Your task to perform on an android device: toggle priority inbox in the gmail app Image 0: 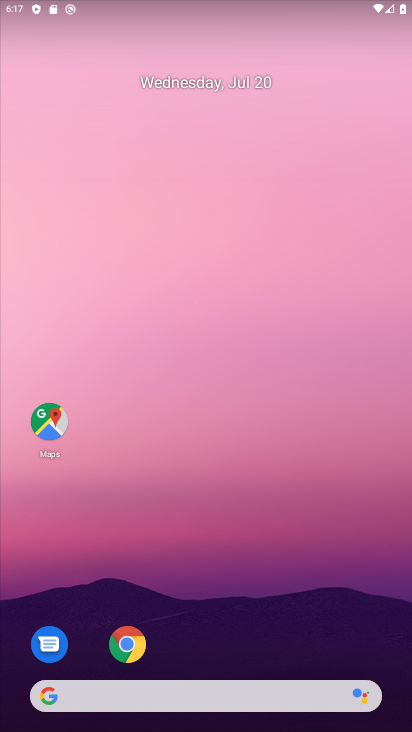
Step 0: drag from (239, 646) to (263, 92)
Your task to perform on an android device: toggle priority inbox in the gmail app Image 1: 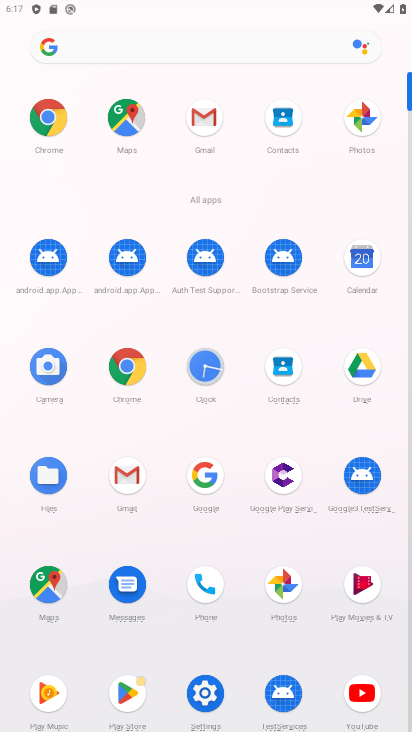
Step 1: click (201, 119)
Your task to perform on an android device: toggle priority inbox in the gmail app Image 2: 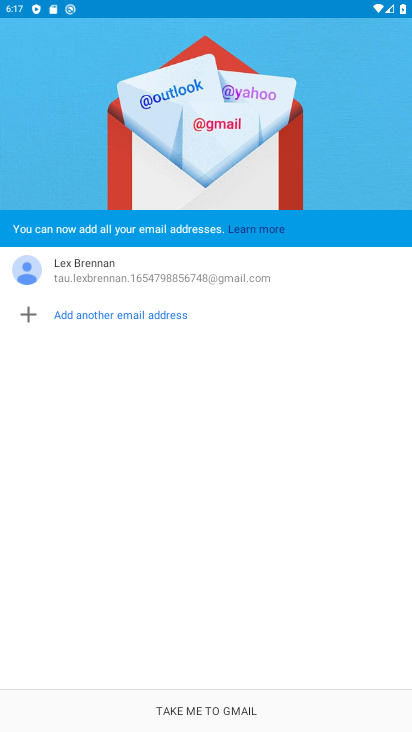
Step 2: click (206, 705)
Your task to perform on an android device: toggle priority inbox in the gmail app Image 3: 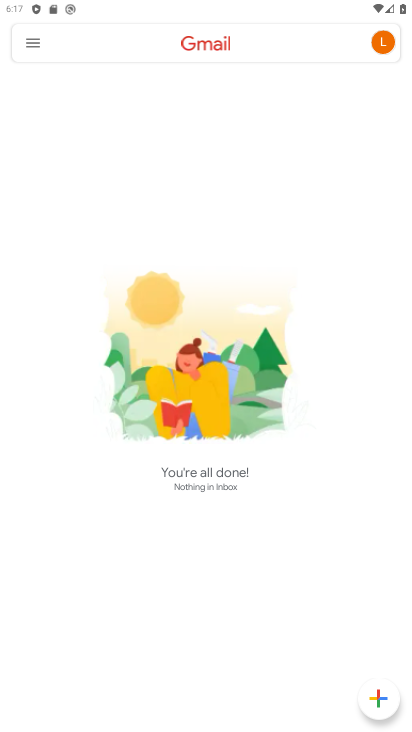
Step 3: click (26, 44)
Your task to perform on an android device: toggle priority inbox in the gmail app Image 4: 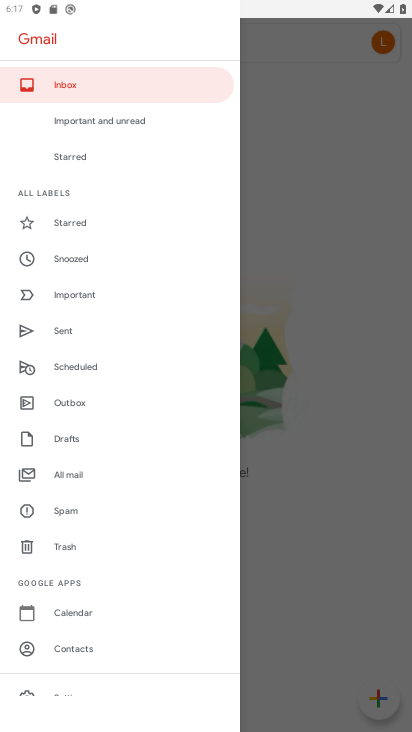
Step 4: drag from (88, 549) to (91, 110)
Your task to perform on an android device: toggle priority inbox in the gmail app Image 5: 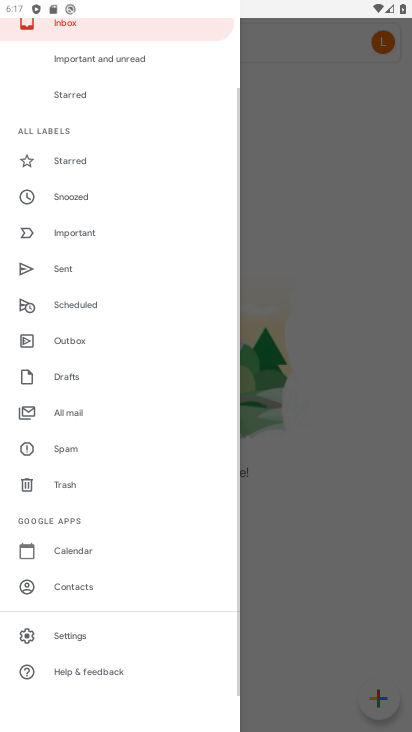
Step 5: click (76, 633)
Your task to perform on an android device: toggle priority inbox in the gmail app Image 6: 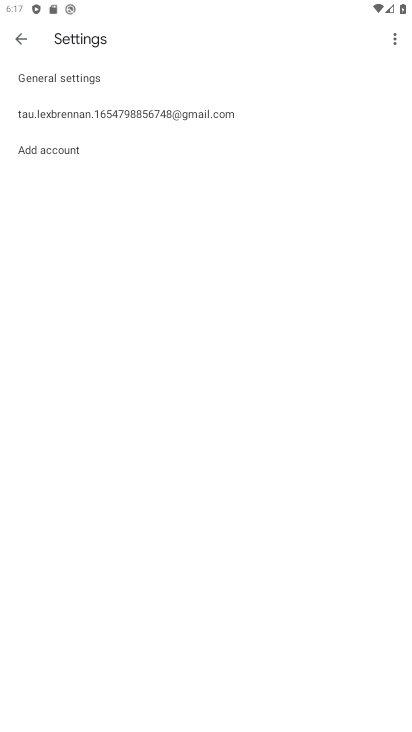
Step 6: click (110, 114)
Your task to perform on an android device: toggle priority inbox in the gmail app Image 7: 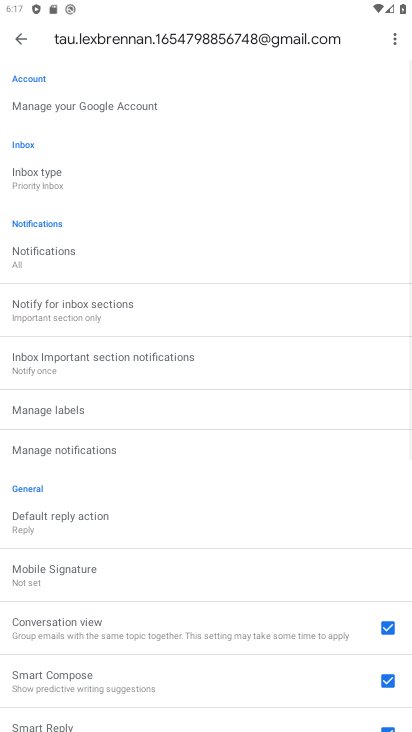
Step 7: click (29, 182)
Your task to perform on an android device: toggle priority inbox in the gmail app Image 8: 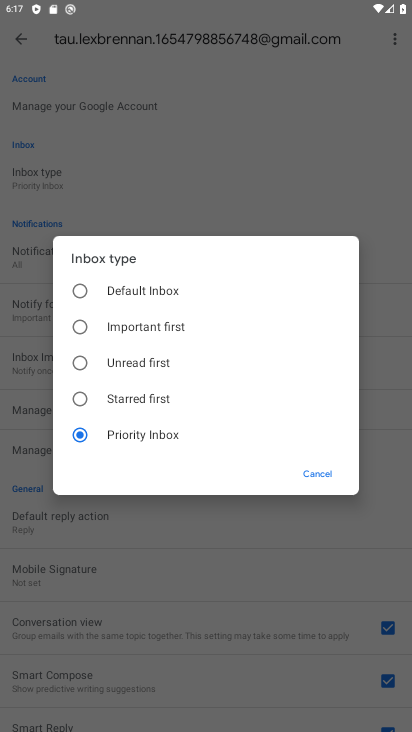
Step 8: click (76, 288)
Your task to perform on an android device: toggle priority inbox in the gmail app Image 9: 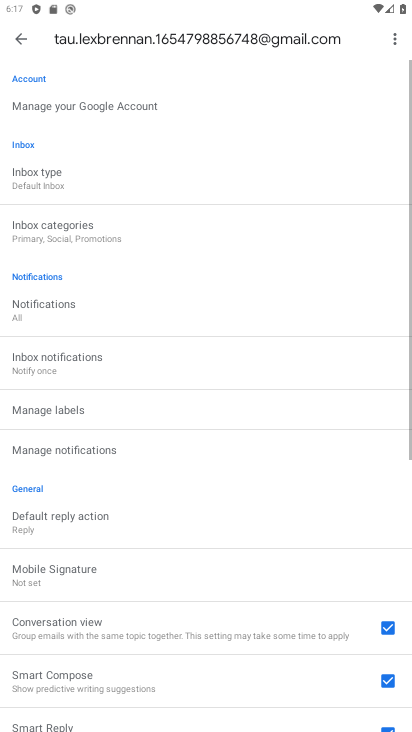
Step 9: task complete